Your task to perform on an android device: Open Chrome and go to settings Image 0: 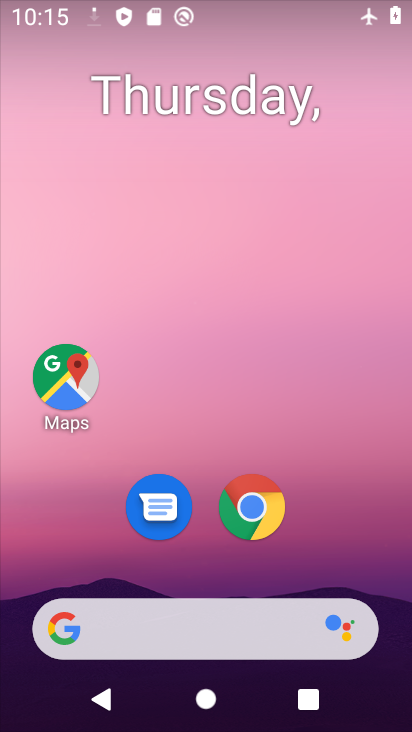
Step 0: drag from (340, 516) to (314, 0)
Your task to perform on an android device: Open Chrome and go to settings Image 1: 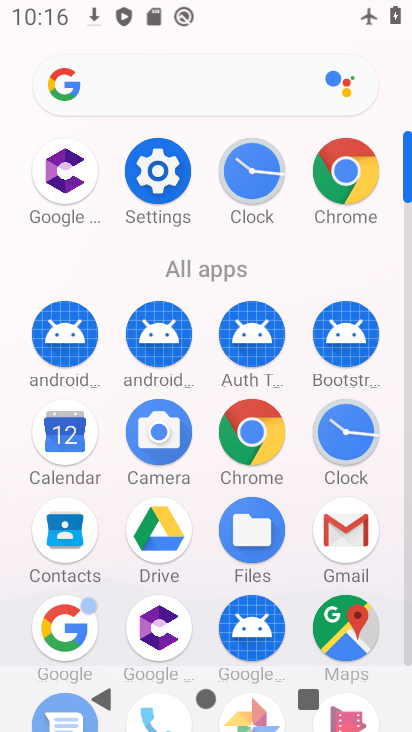
Step 1: click (345, 166)
Your task to perform on an android device: Open Chrome and go to settings Image 2: 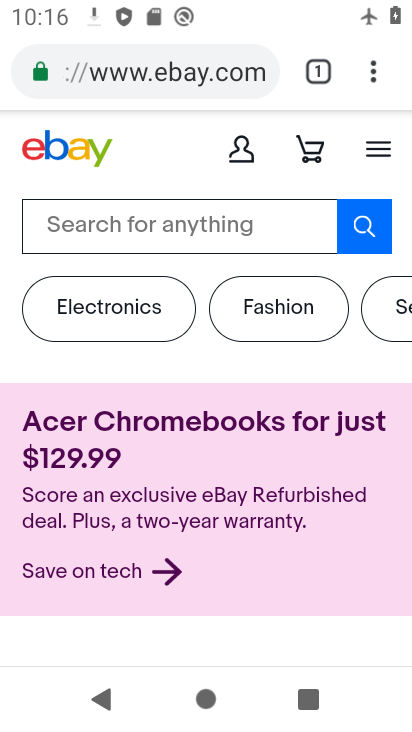
Step 2: task complete